Your task to perform on an android device: Go to privacy settings Image 0: 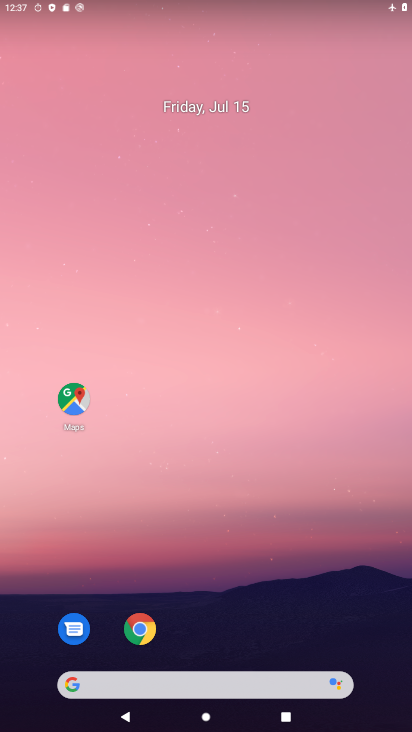
Step 0: click (133, 35)
Your task to perform on an android device: Go to privacy settings Image 1: 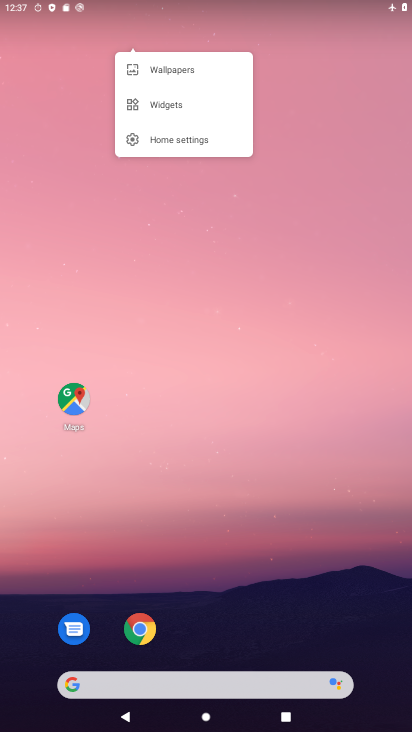
Step 1: drag from (204, 657) to (146, 182)
Your task to perform on an android device: Go to privacy settings Image 2: 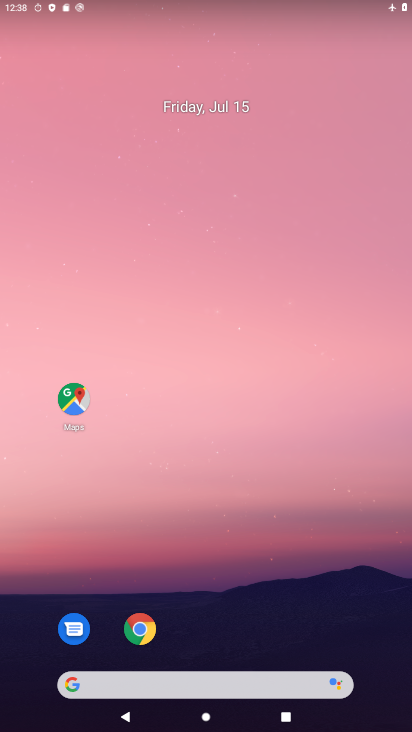
Step 2: drag from (235, 653) to (242, 122)
Your task to perform on an android device: Go to privacy settings Image 3: 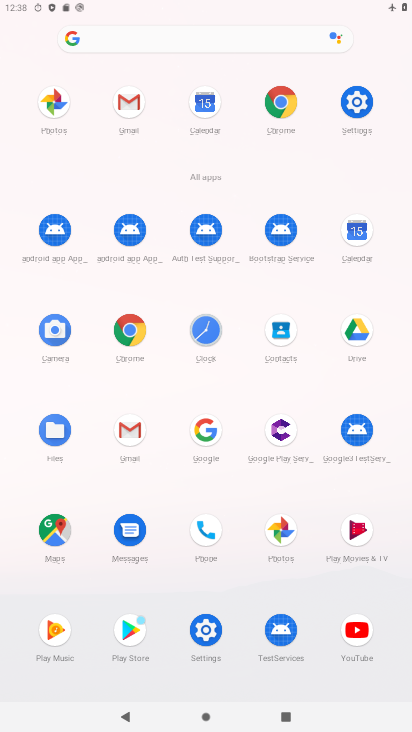
Step 3: click (349, 113)
Your task to perform on an android device: Go to privacy settings Image 4: 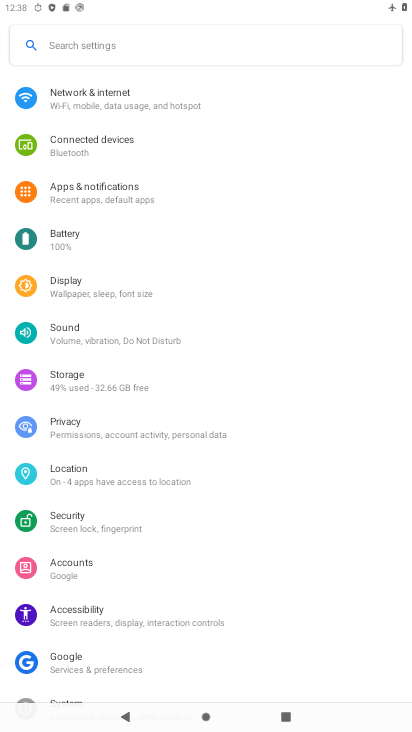
Step 4: click (88, 435)
Your task to perform on an android device: Go to privacy settings Image 5: 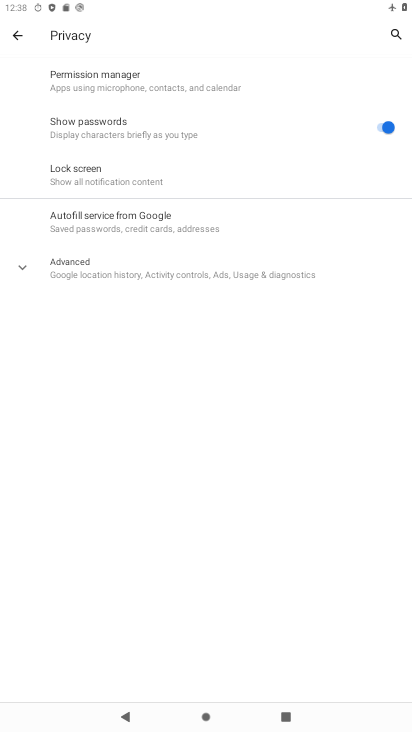
Step 5: task complete